Your task to perform on an android device: delete location history Image 0: 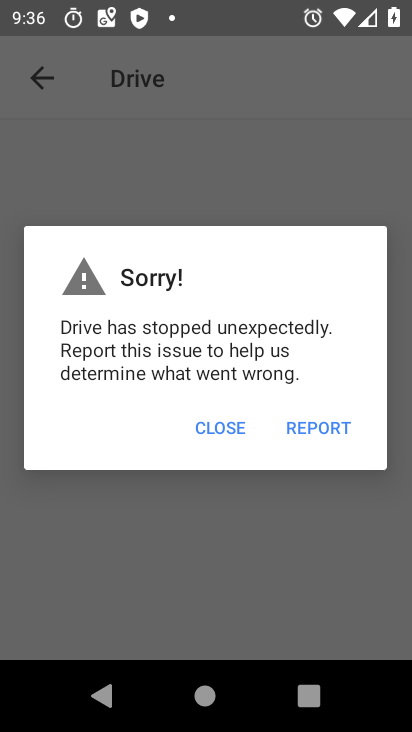
Step 0: press home button
Your task to perform on an android device: delete location history Image 1: 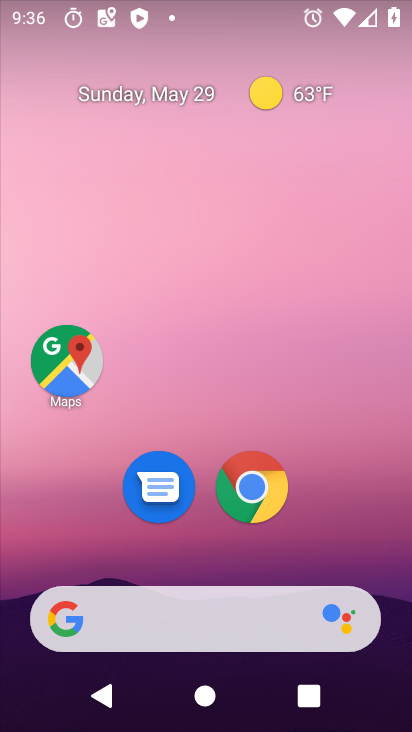
Step 1: drag from (195, 597) to (167, 56)
Your task to perform on an android device: delete location history Image 2: 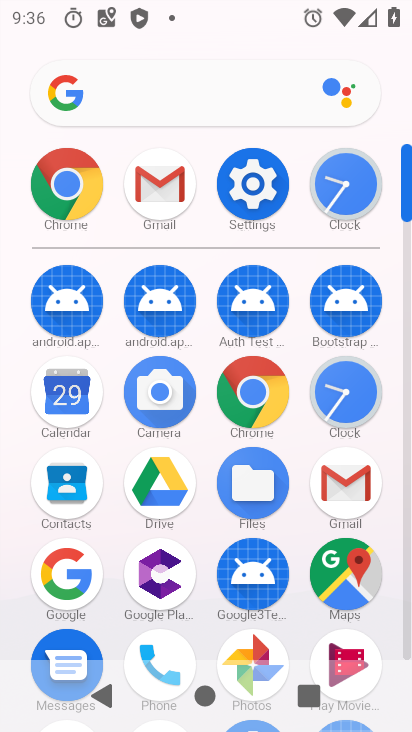
Step 2: drag from (268, 477) to (261, 81)
Your task to perform on an android device: delete location history Image 3: 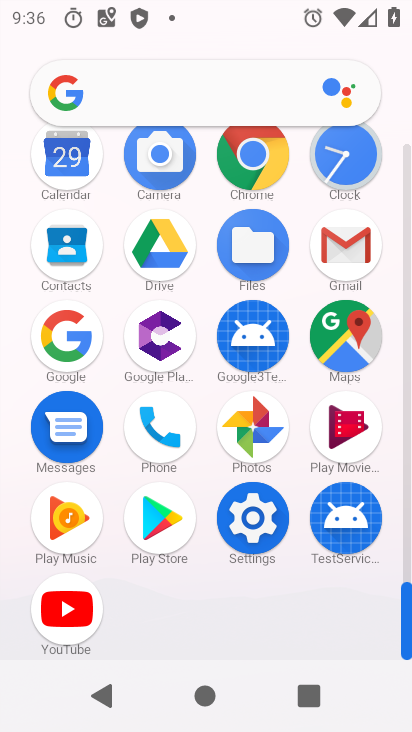
Step 3: click (271, 521)
Your task to perform on an android device: delete location history Image 4: 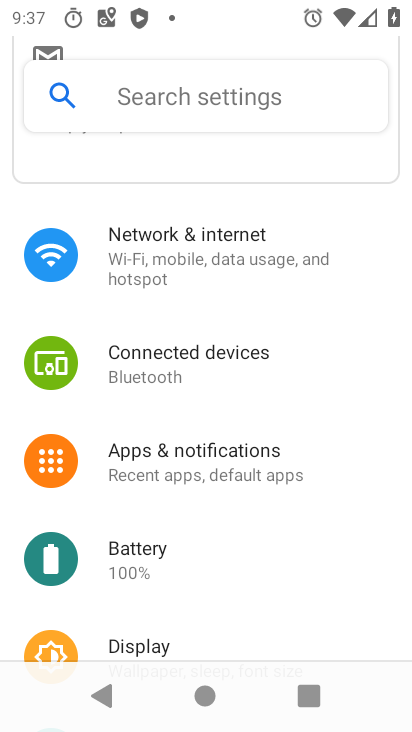
Step 4: drag from (175, 562) to (152, 287)
Your task to perform on an android device: delete location history Image 5: 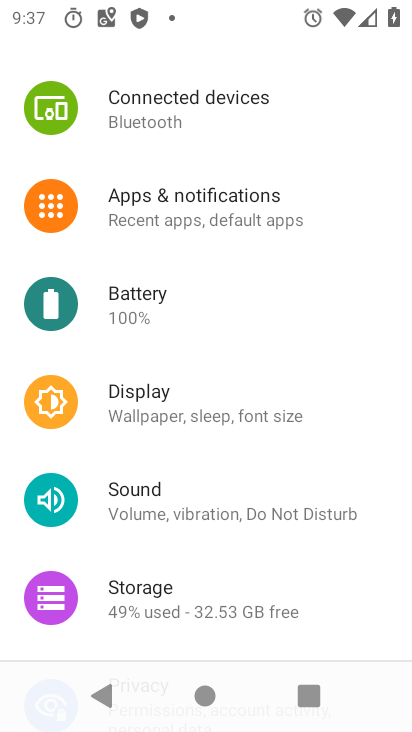
Step 5: drag from (142, 504) to (231, 221)
Your task to perform on an android device: delete location history Image 6: 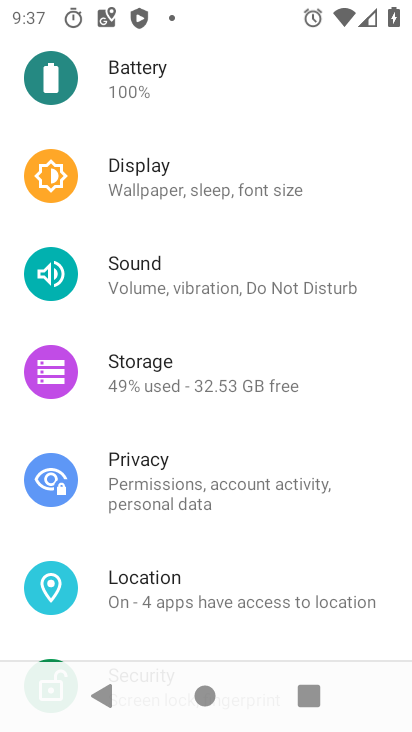
Step 6: click (137, 603)
Your task to perform on an android device: delete location history Image 7: 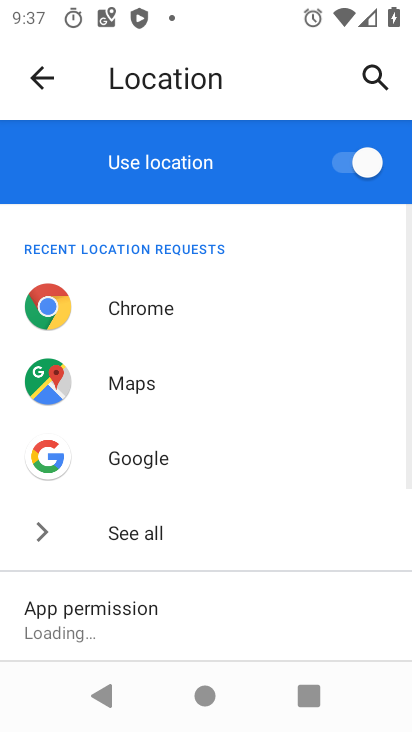
Step 7: drag from (136, 530) to (149, 239)
Your task to perform on an android device: delete location history Image 8: 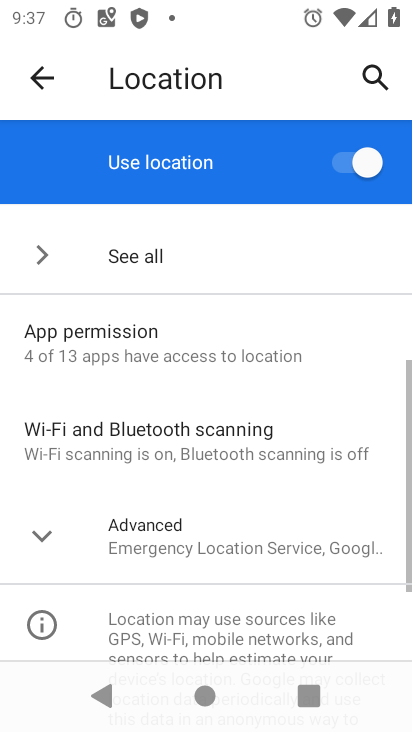
Step 8: click (167, 515)
Your task to perform on an android device: delete location history Image 9: 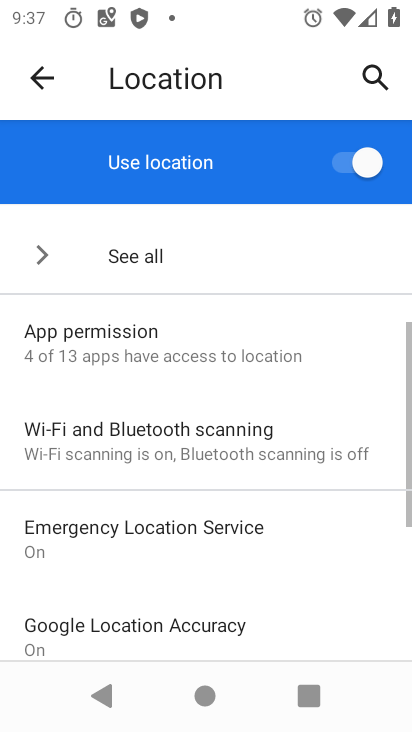
Step 9: drag from (211, 621) to (221, 388)
Your task to perform on an android device: delete location history Image 10: 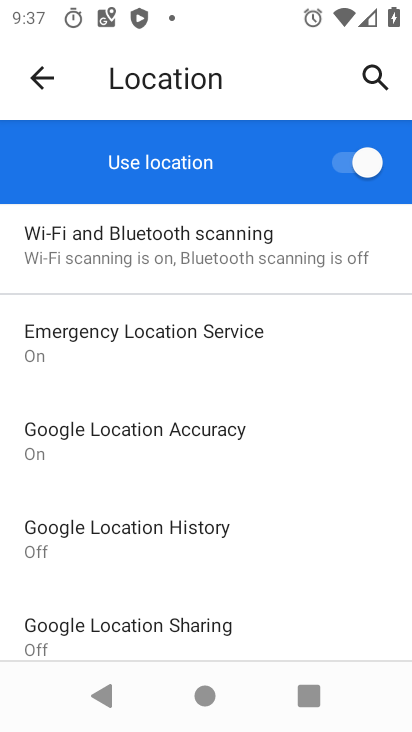
Step 10: click (197, 531)
Your task to perform on an android device: delete location history Image 11: 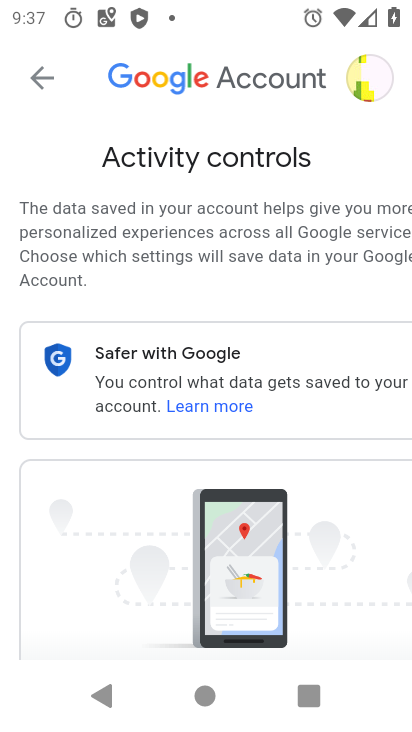
Step 11: drag from (304, 614) to (76, 141)
Your task to perform on an android device: delete location history Image 12: 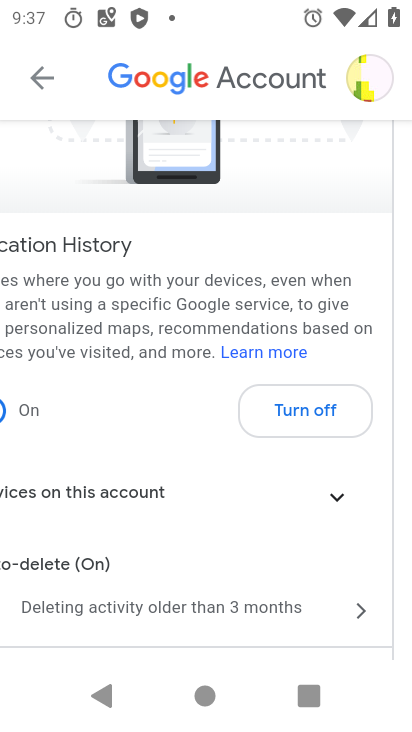
Step 12: drag from (237, 545) to (208, 348)
Your task to perform on an android device: delete location history Image 13: 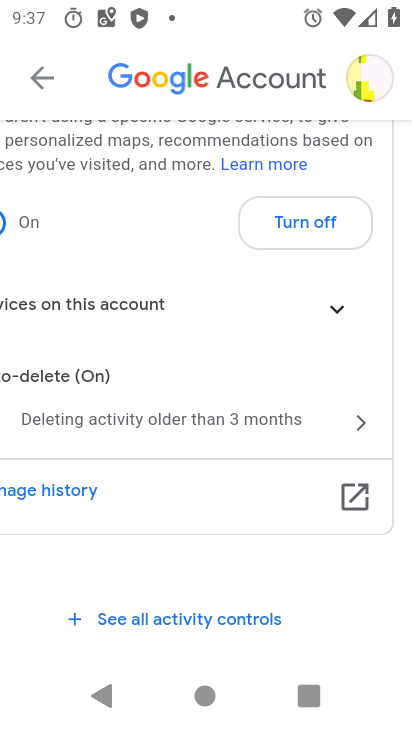
Step 13: click (311, 427)
Your task to perform on an android device: delete location history Image 14: 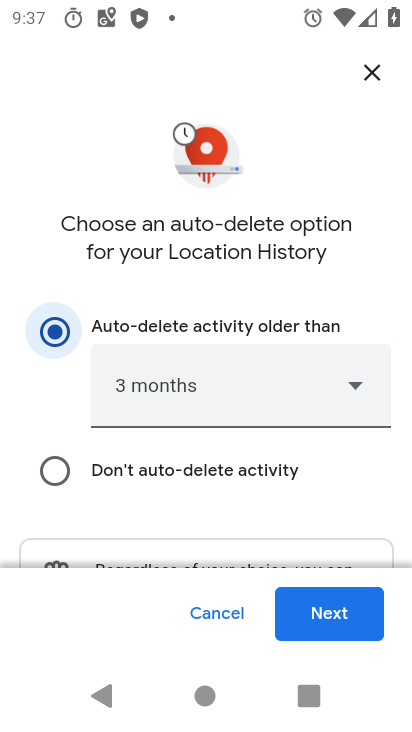
Step 14: click (327, 620)
Your task to perform on an android device: delete location history Image 15: 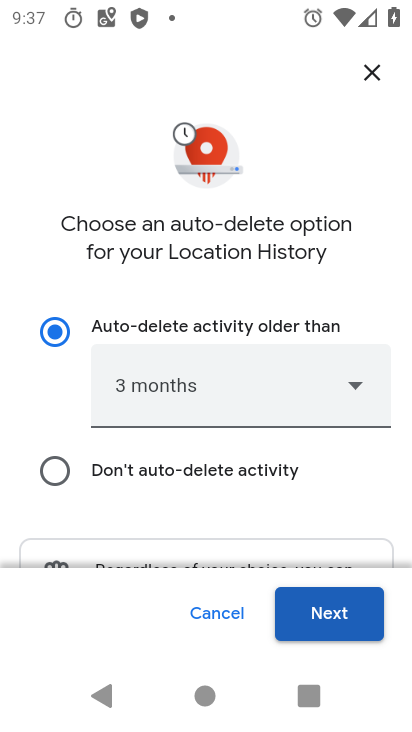
Step 15: click (327, 618)
Your task to perform on an android device: delete location history Image 16: 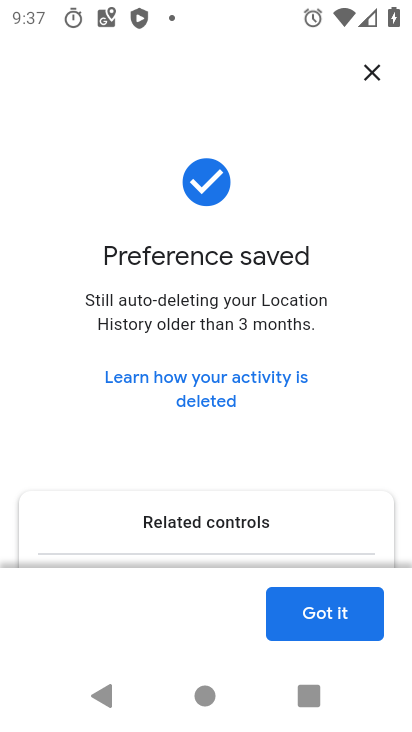
Step 16: click (327, 618)
Your task to perform on an android device: delete location history Image 17: 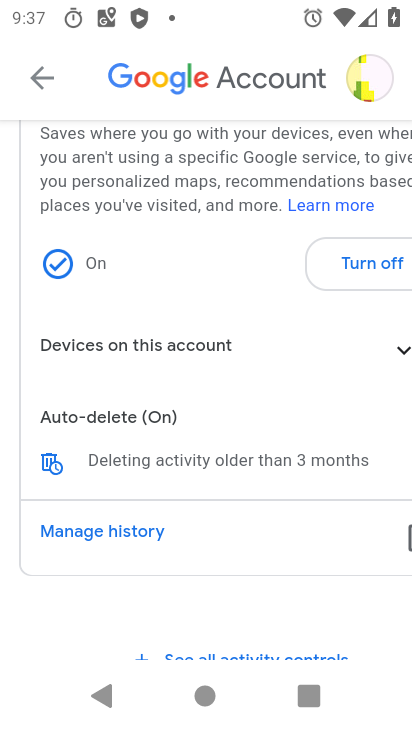
Step 17: task complete